Your task to perform on an android device: Turn off the flashlight Image 0: 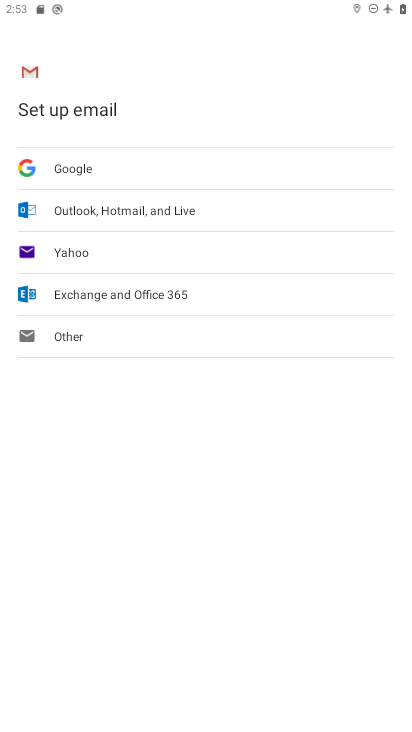
Step 0: press home button
Your task to perform on an android device: Turn off the flashlight Image 1: 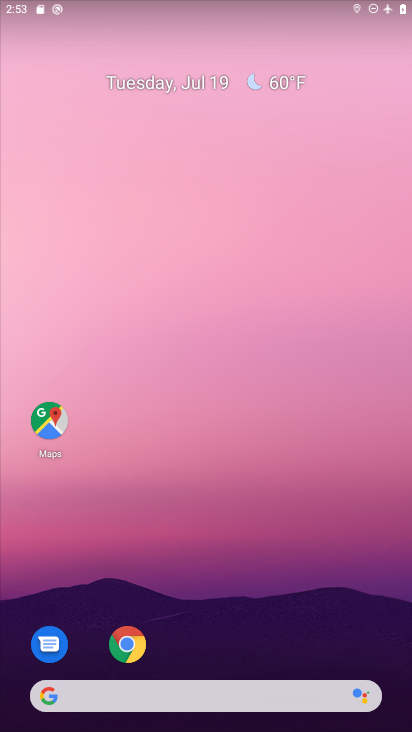
Step 1: drag from (193, 679) to (181, 90)
Your task to perform on an android device: Turn off the flashlight Image 2: 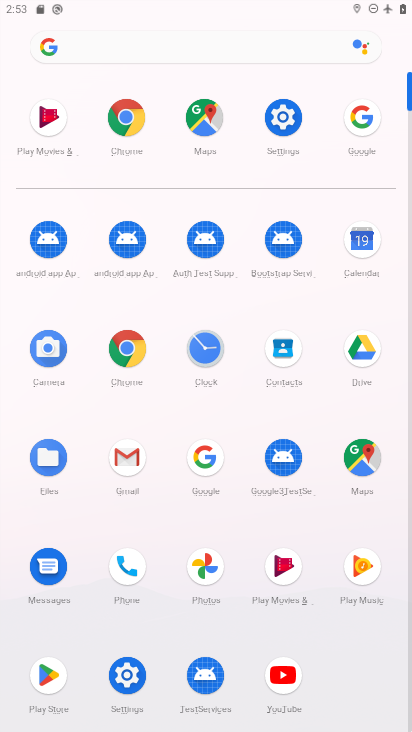
Step 2: click (291, 123)
Your task to perform on an android device: Turn off the flashlight Image 3: 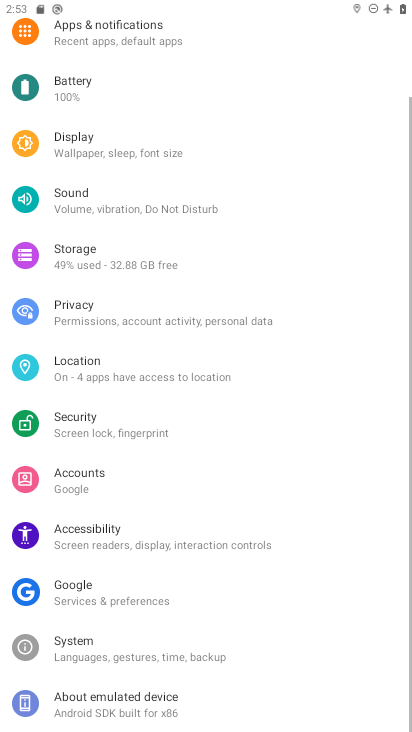
Step 3: task complete